Your task to perform on an android device: change timer sound Image 0: 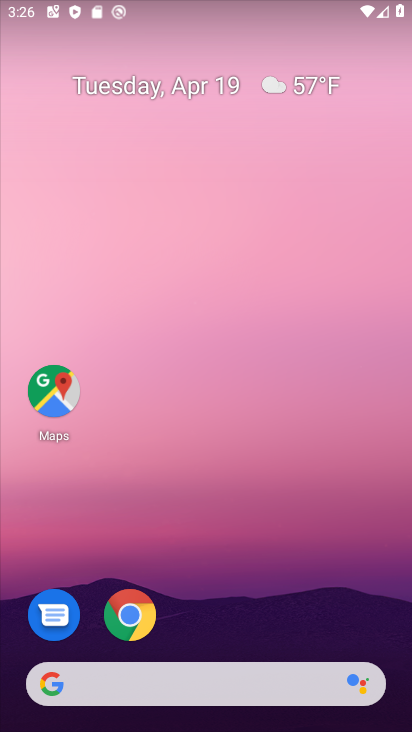
Step 0: drag from (219, 543) to (227, 233)
Your task to perform on an android device: change timer sound Image 1: 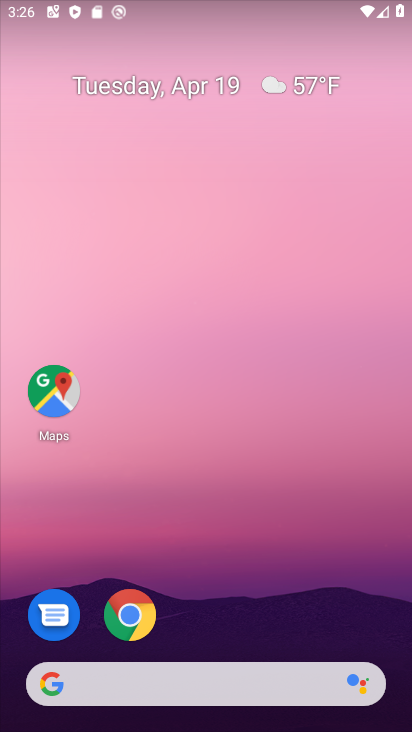
Step 1: drag from (220, 626) to (200, 123)
Your task to perform on an android device: change timer sound Image 2: 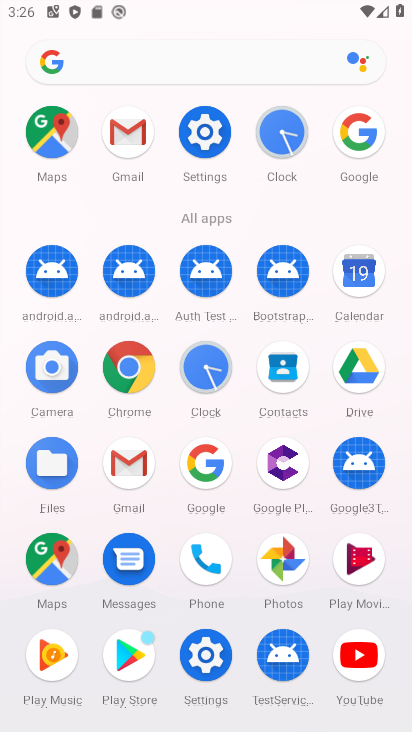
Step 2: click (282, 115)
Your task to perform on an android device: change timer sound Image 3: 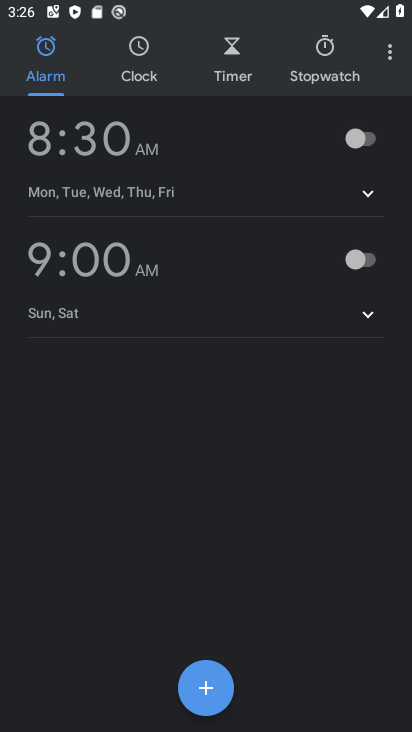
Step 3: click (387, 58)
Your task to perform on an android device: change timer sound Image 4: 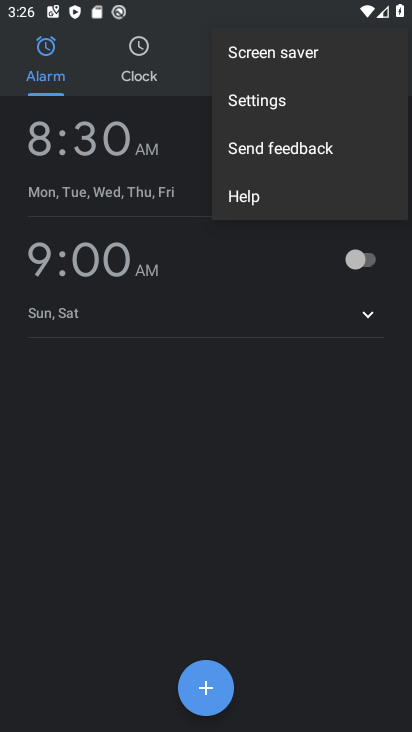
Step 4: click (276, 112)
Your task to perform on an android device: change timer sound Image 5: 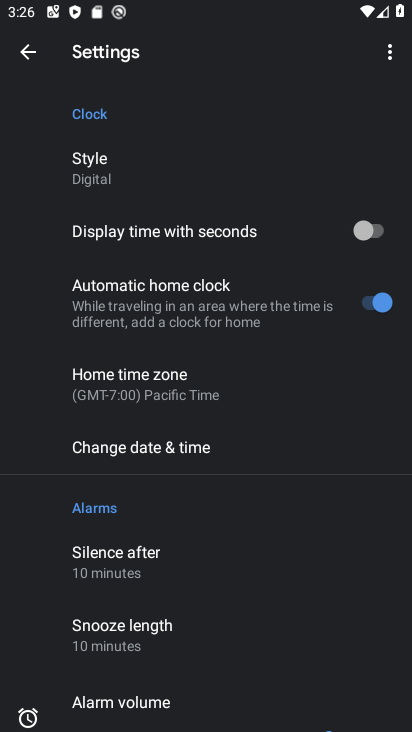
Step 5: drag from (222, 666) to (224, 296)
Your task to perform on an android device: change timer sound Image 6: 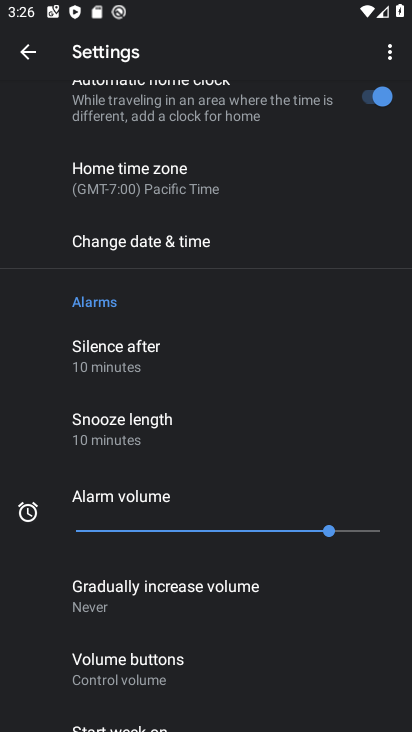
Step 6: drag from (225, 649) to (235, 350)
Your task to perform on an android device: change timer sound Image 7: 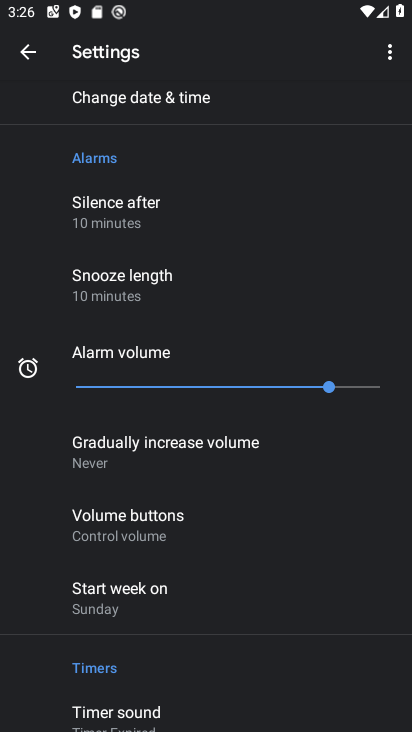
Step 7: click (189, 712)
Your task to perform on an android device: change timer sound Image 8: 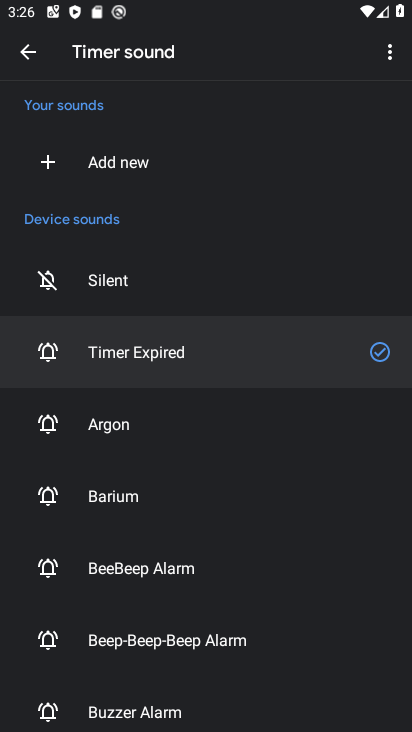
Step 8: click (179, 425)
Your task to perform on an android device: change timer sound Image 9: 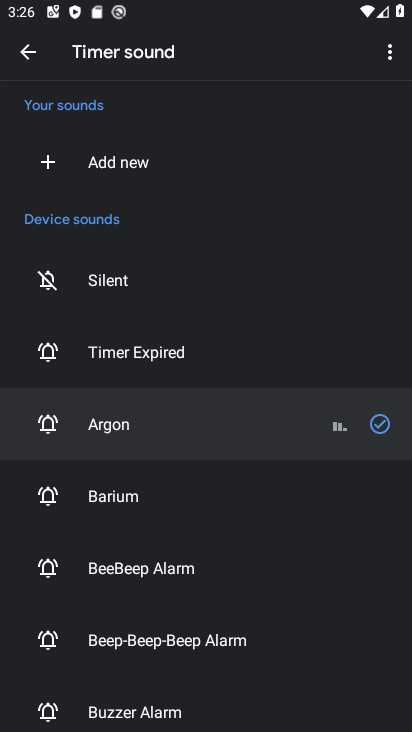
Step 9: task complete